Your task to perform on an android device: Open ESPN.com Image 0: 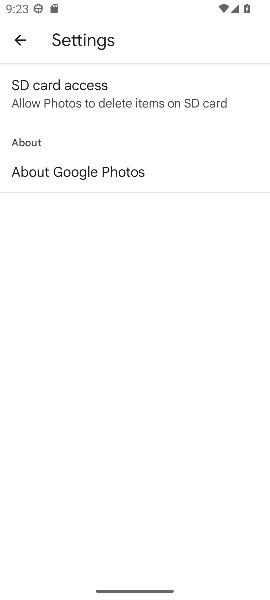
Step 0: press home button
Your task to perform on an android device: Open ESPN.com Image 1: 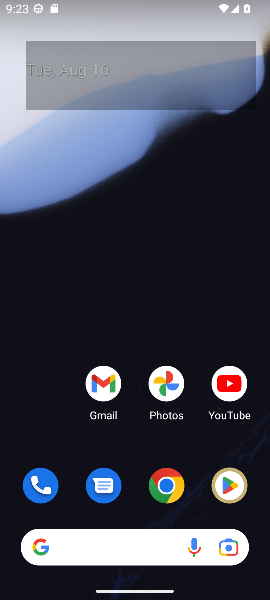
Step 1: click (173, 488)
Your task to perform on an android device: Open ESPN.com Image 2: 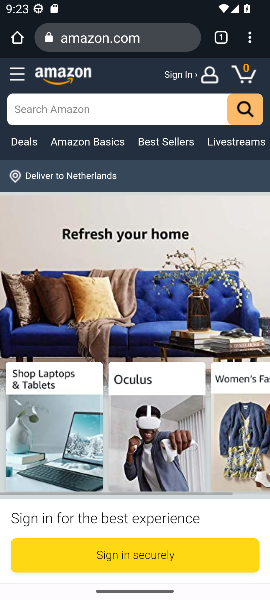
Step 2: click (84, 38)
Your task to perform on an android device: Open ESPN.com Image 3: 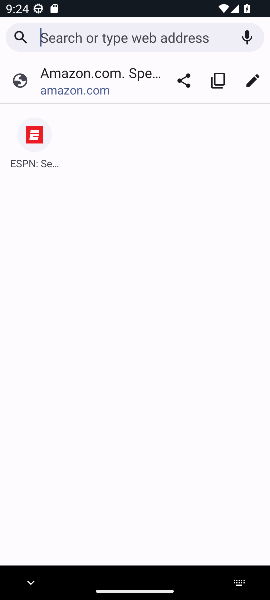
Step 3: type "espn.com"
Your task to perform on an android device: Open ESPN.com Image 4: 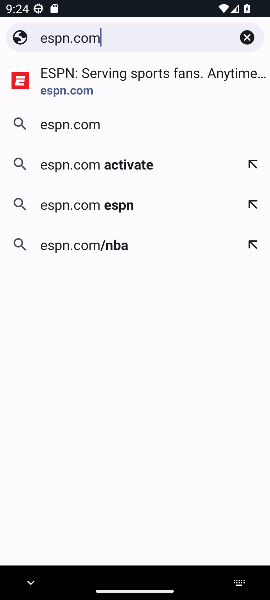
Step 4: click (113, 84)
Your task to perform on an android device: Open ESPN.com Image 5: 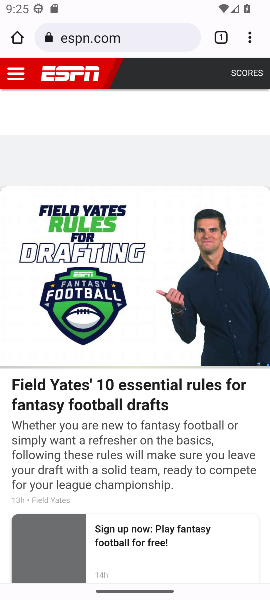
Step 5: task complete